Your task to perform on an android device: open the mobile data screen to see how much data has been used Image 0: 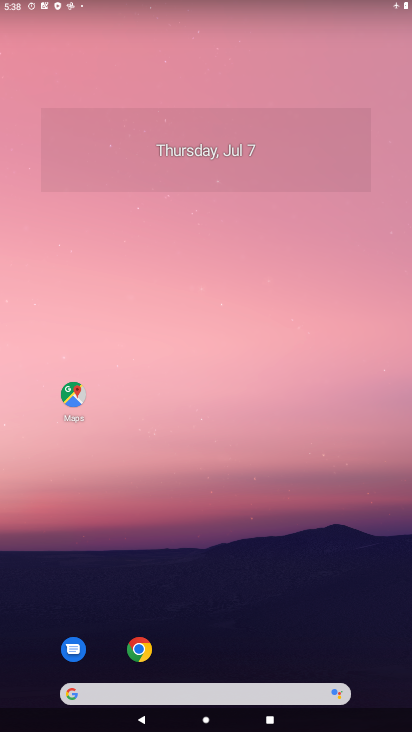
Step 0: drag from (383, 693) to (192, 136)
Your task to perform on an android device: open the mobile data screen to see how much data has been used Image 1: 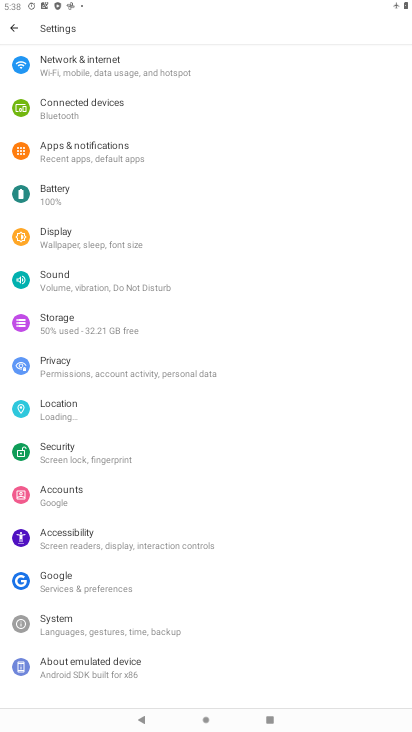
Step 1: task complete